Your task to perform on an android device: install app "NewsBreak: Local News & Alerts" Image 0: 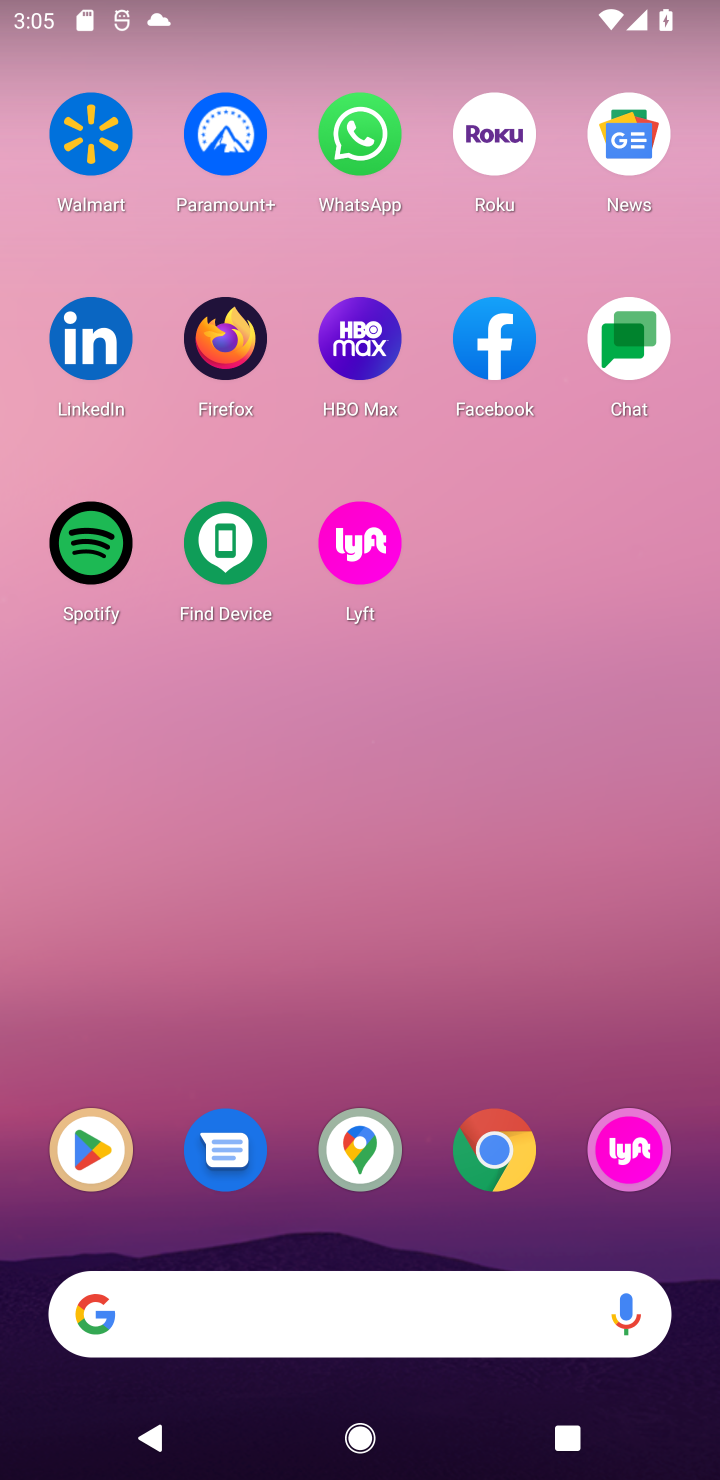
Step 0: drag from (488, 426) to (503, 124)
Your task to perform on an android device: install app "NewsBreak: Local News & Alerts" Image 1: 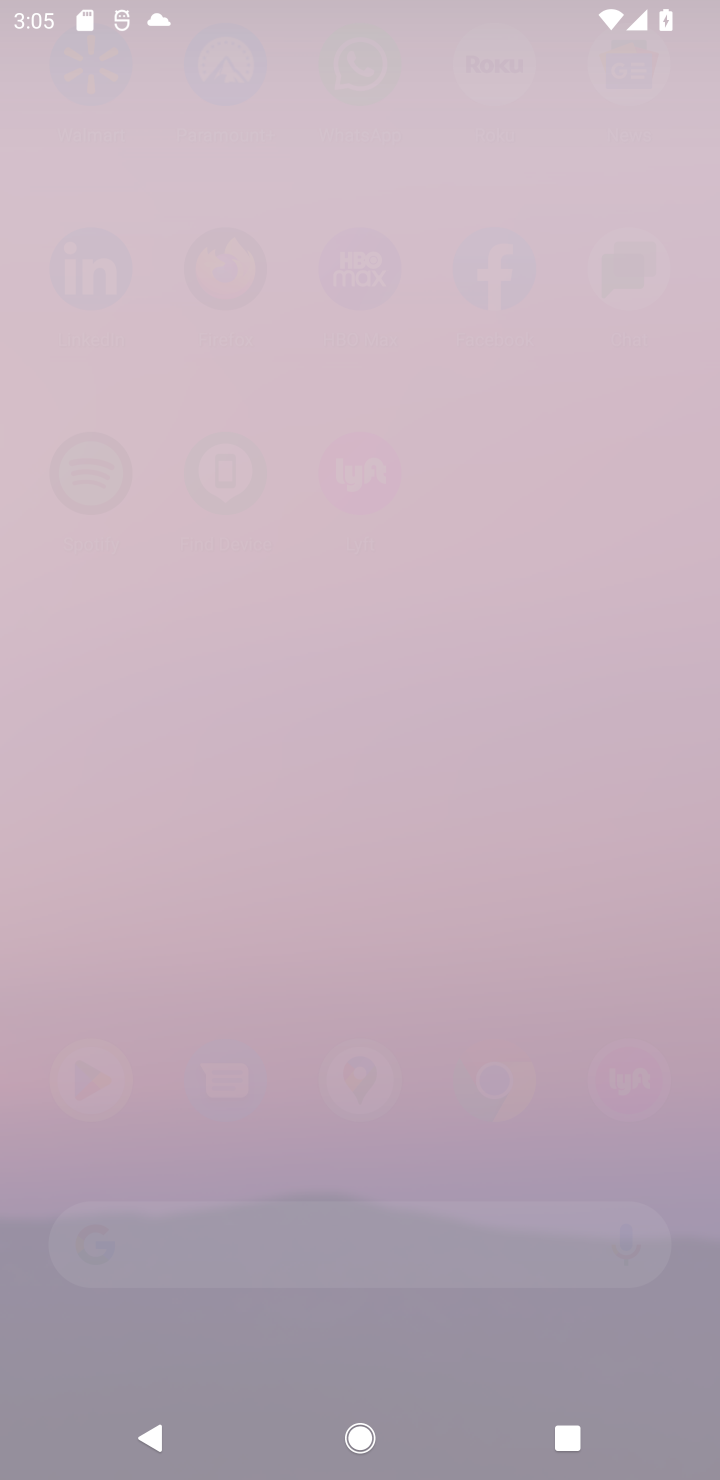
Step 1: click (80, 1143)
Your task to perform on an android device: install app "NewsBreak: Local News & Alerts" Image 2: 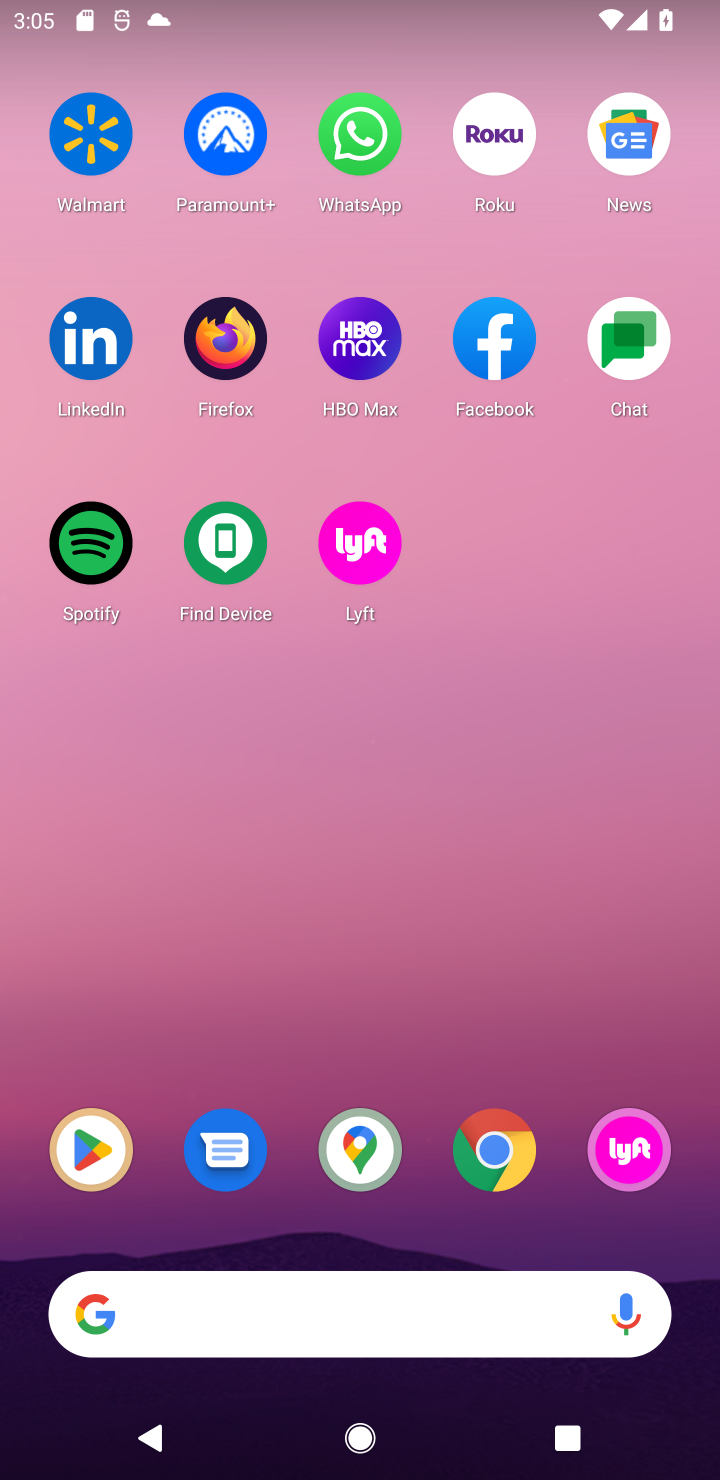
Step 2: click (97, 1149)
Your task to perform on an android device: install app "NewsBreak: Local News & Alerts" Image 3: 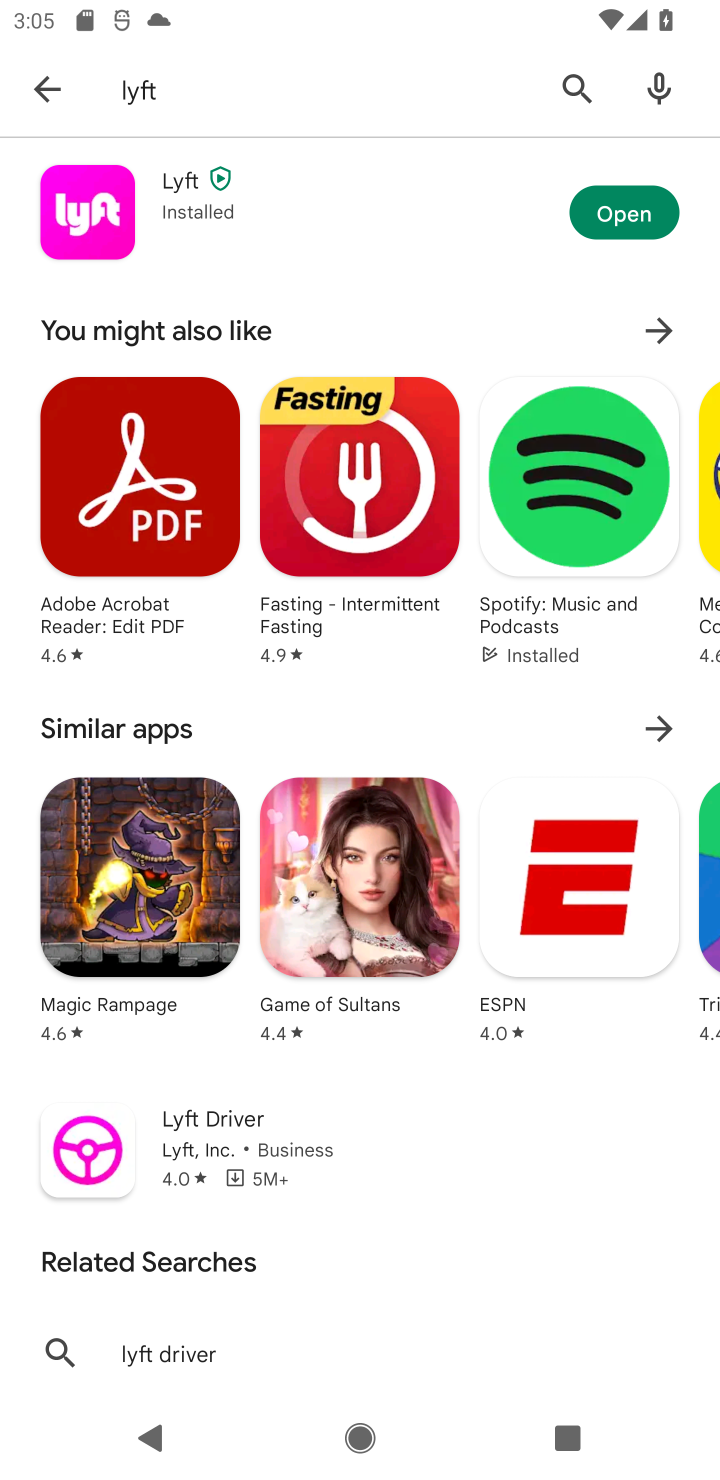
Step 3: click (572, 67)
Your task to perform on an android device: install app "NewsBreak: Local News & Alerts" Image 4: 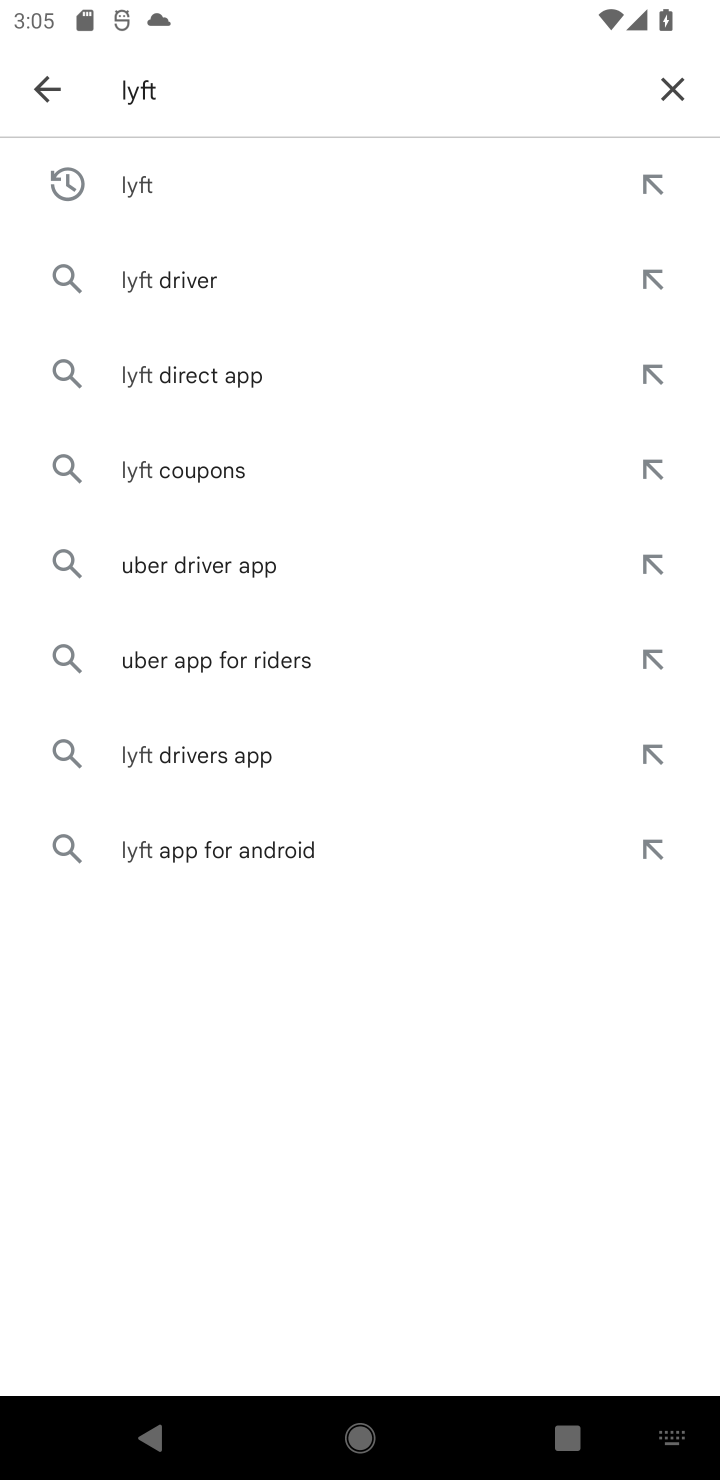
Step 4: click (672, 82)
Your task to perform on an android device: install app "NewsBreak: Local News & Alerts" Image 5: 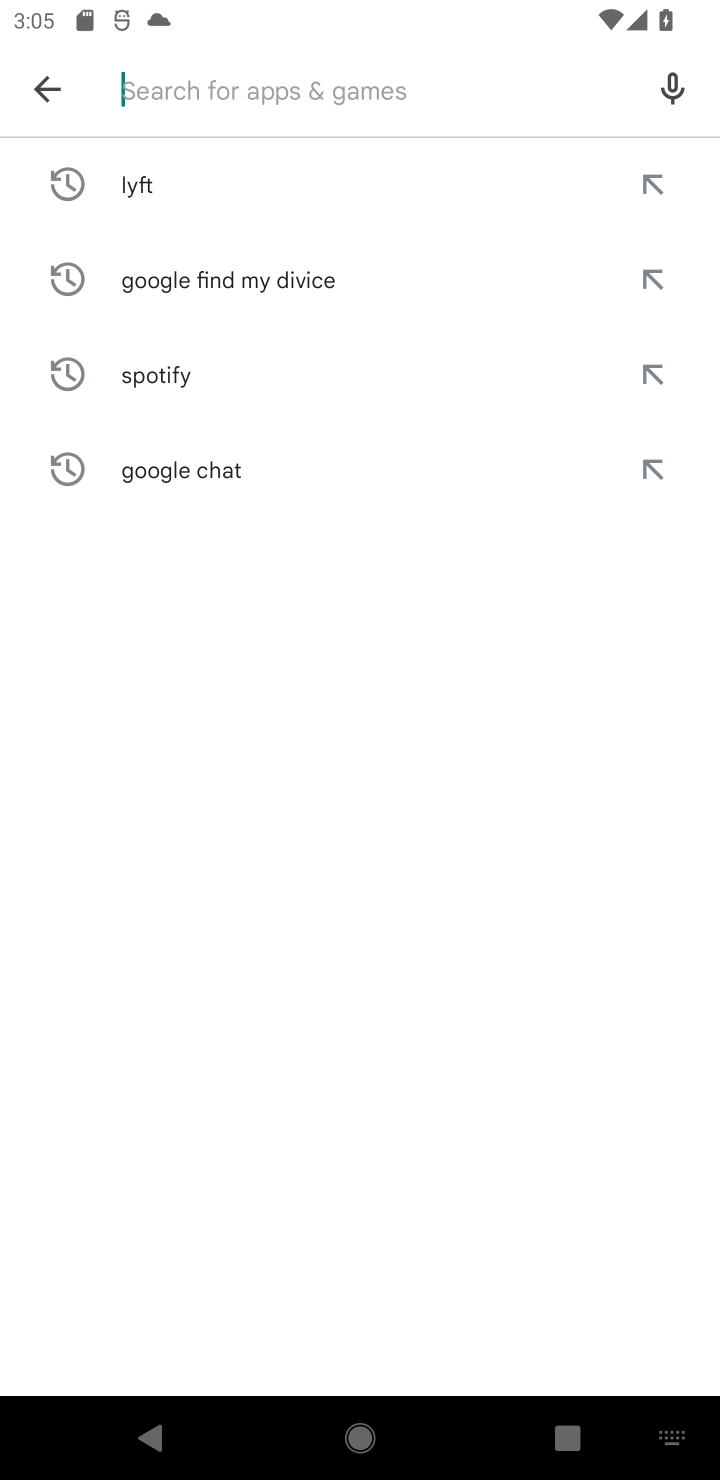
Step 5: type "newsbreak"
Your task to perform on an android device: install app "NewsBreak: Local News & Alerts" Image 6: 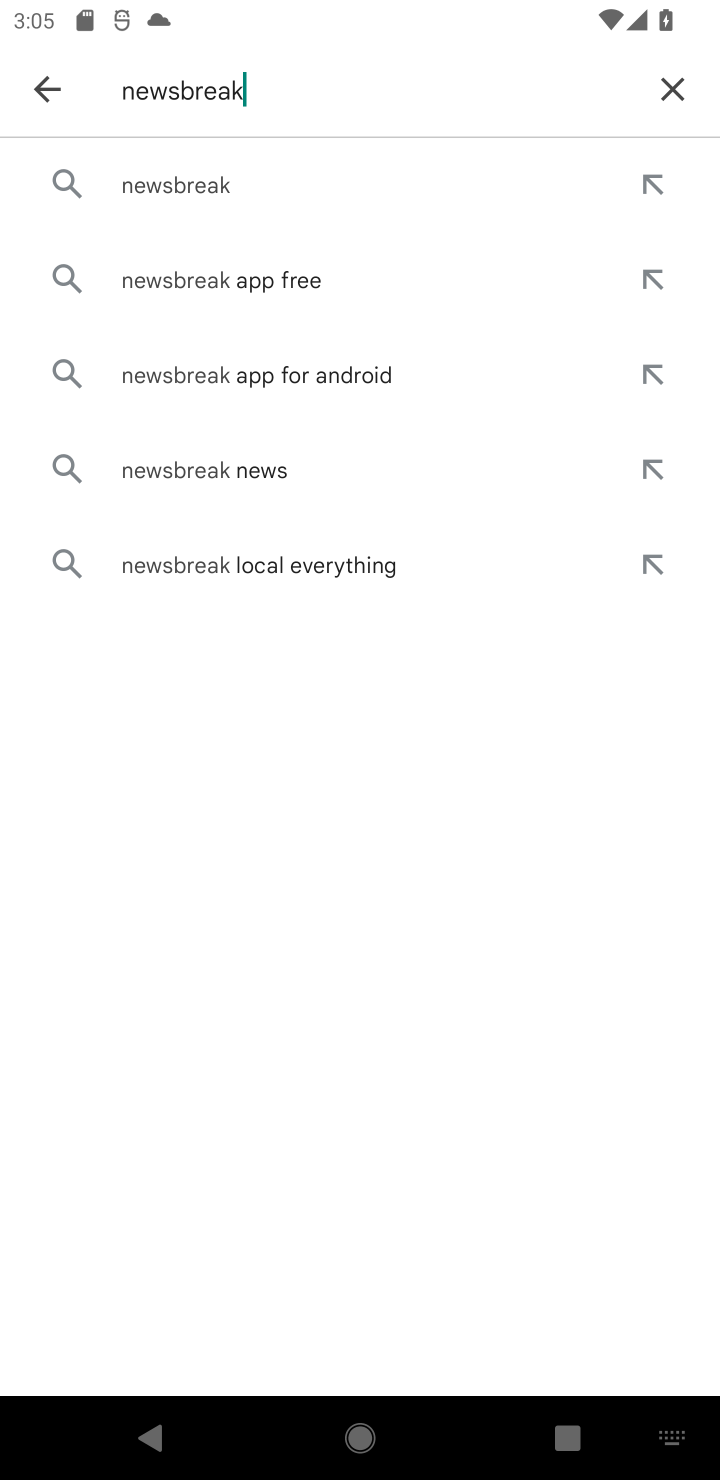
Step 6: click (491, 64)
Your task to perform on an android device: install app "NewsBreak: Local News & Alerts" Image 7: 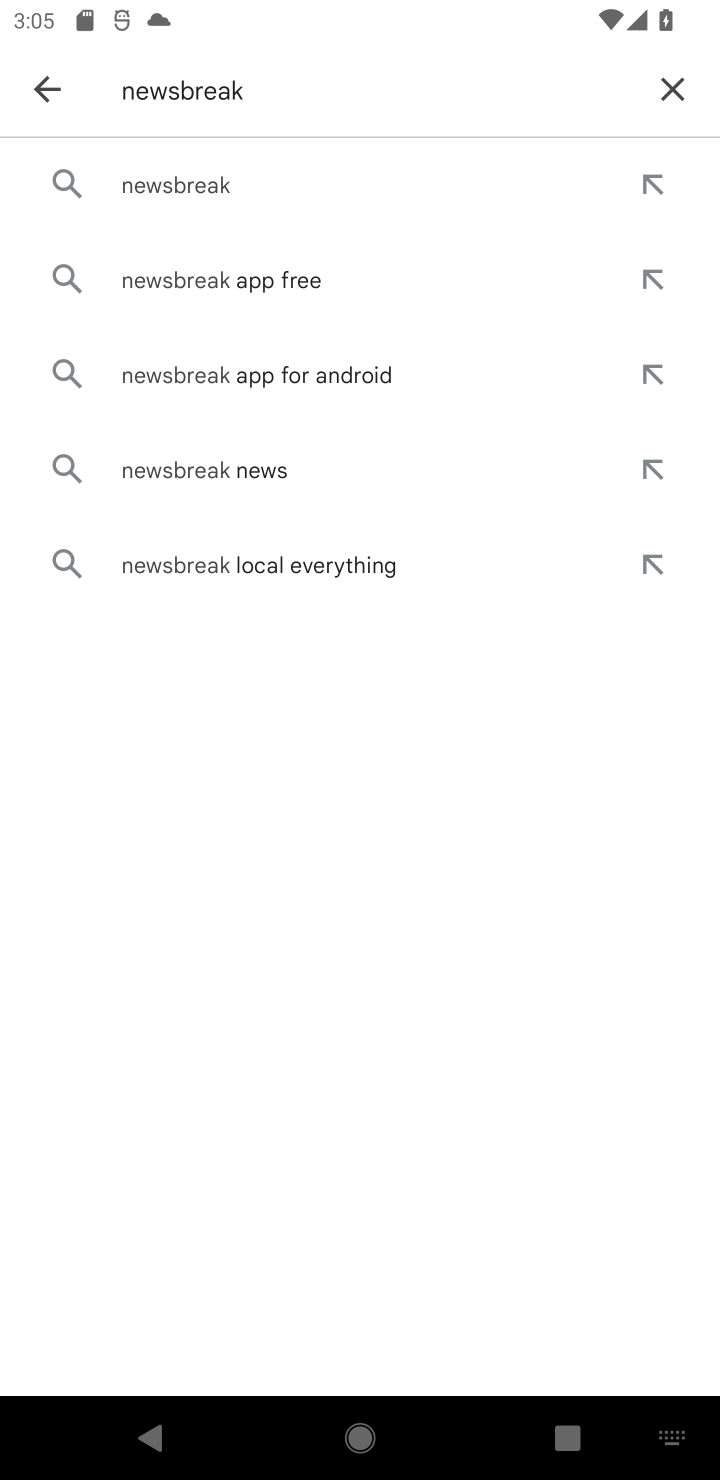
Step 7: click (449, 201)
Your task to perform on an android device: install app "NewsBreak: Local News & Alerts" Image 8: 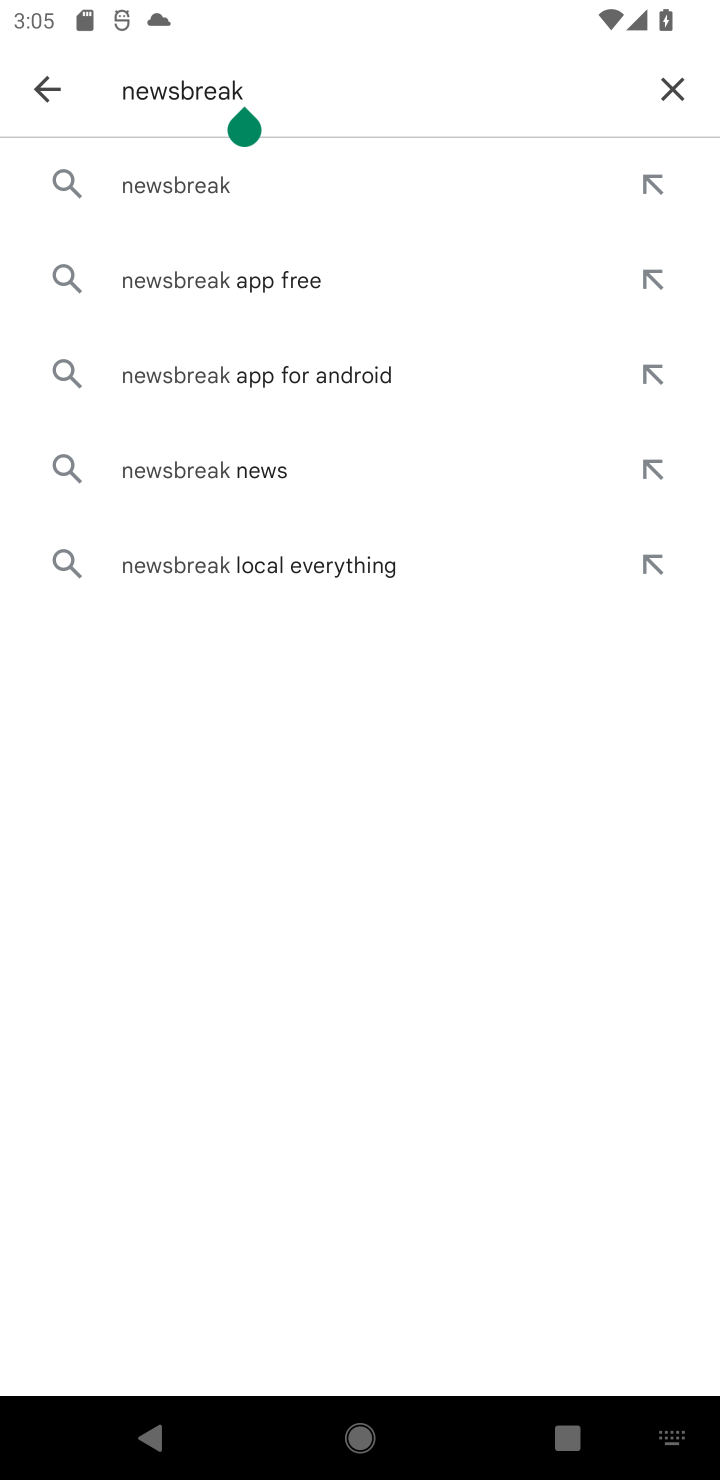
Step 8: click (449, 201)
Your task to perform on an android device: install app "NewsBreak: Local News & Alerts" Image 9: 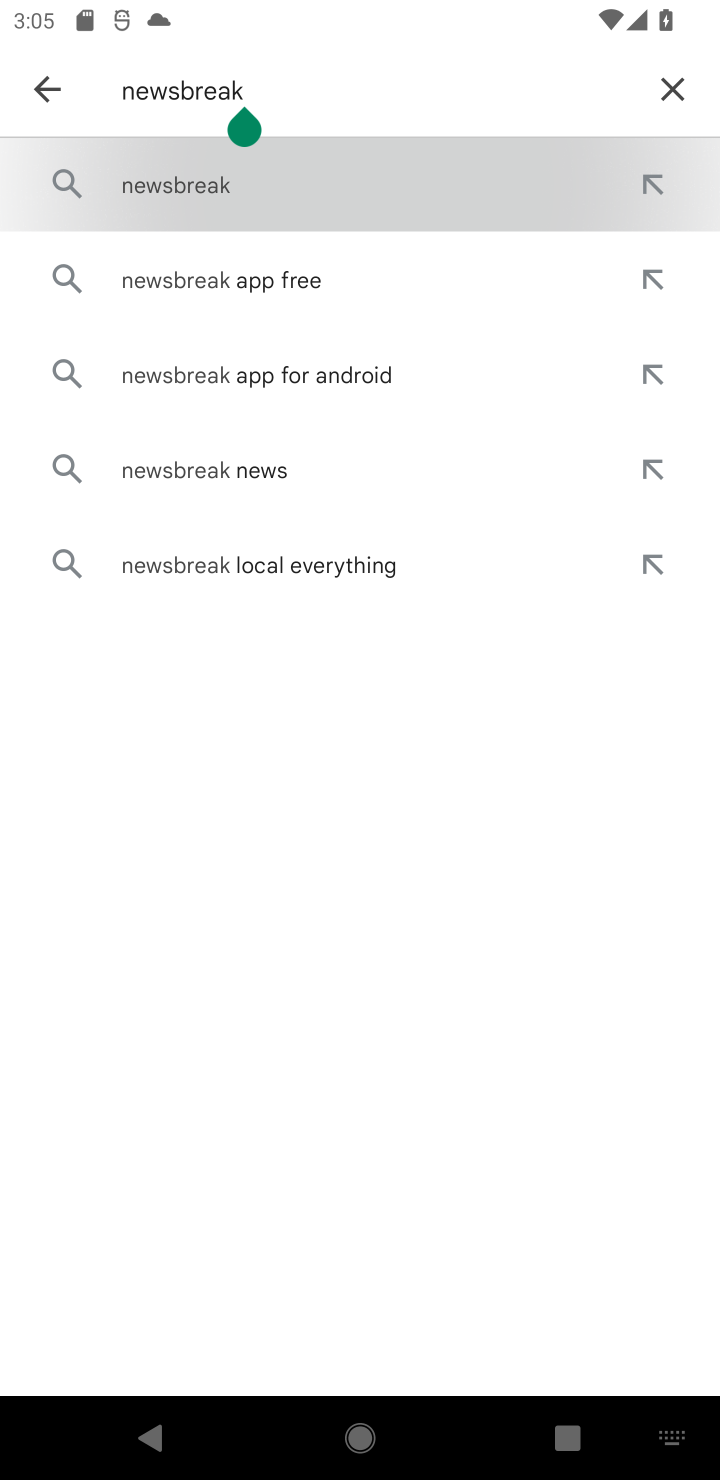
Step 9: click (256, 194)
Your task to perform on an android device: install app "NewsBreak: Local News & Alerts" Image 10: 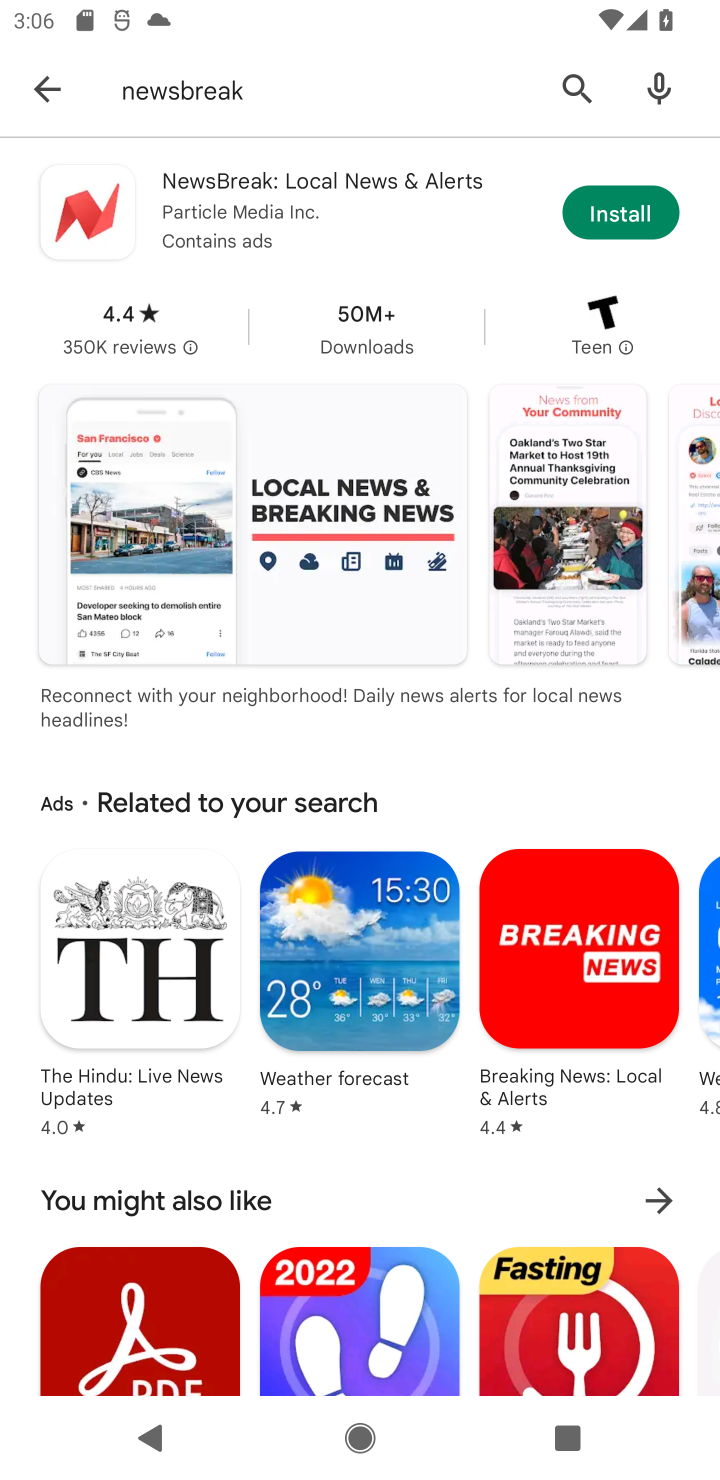
Step 10: click (598, 222)
Your task to perform on an android device: install app "NewsBreak: Local News & Alerts" Image 11: 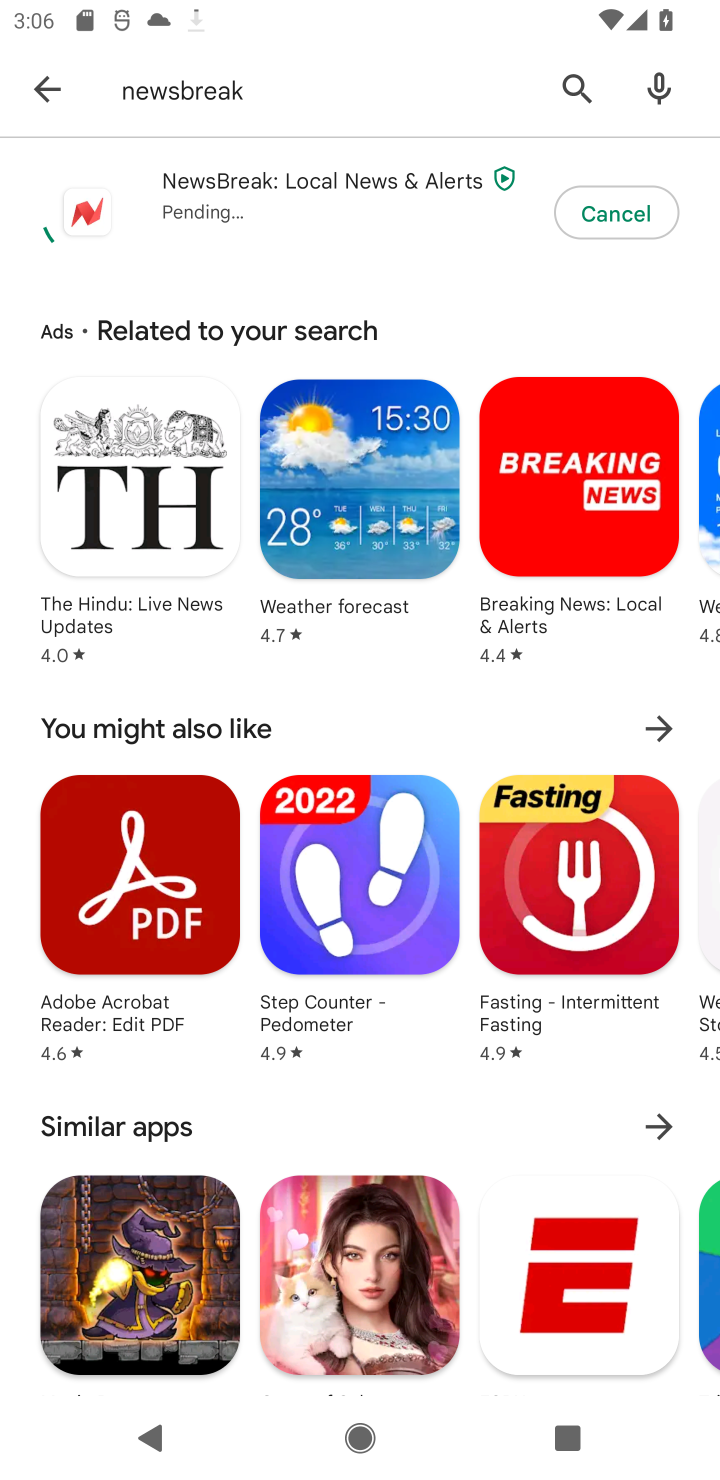
Step 11: task complete